Your task to perform on an android device: turn on location history Image 0: 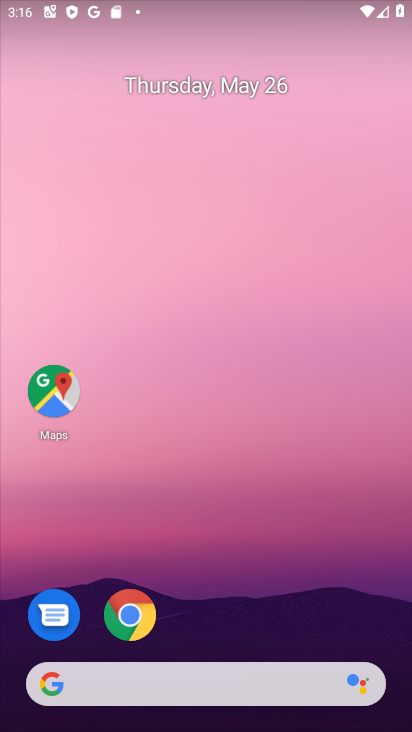
Step 0: drag from (241, 629) to (224, 129)
Your task to perform on an android device: turn on location history Image 1: 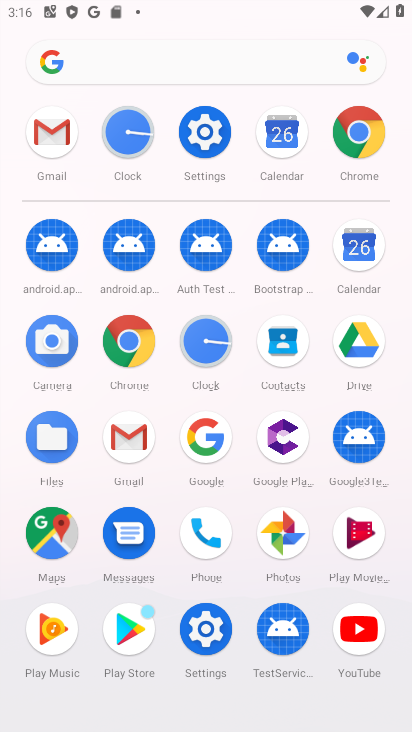
Step 1: click (193, 144)
Your task to perform on an android device: turn on location history Image 2: 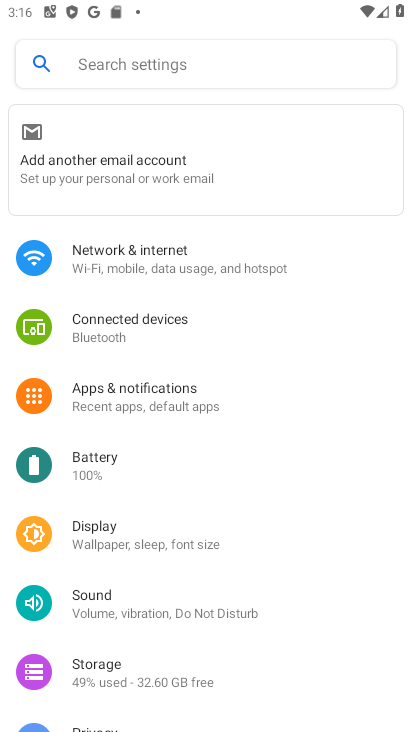
Step 2: drag from (108, 624) to (118, 306)
Your task to perform on an android device: turn on location history Image 3: 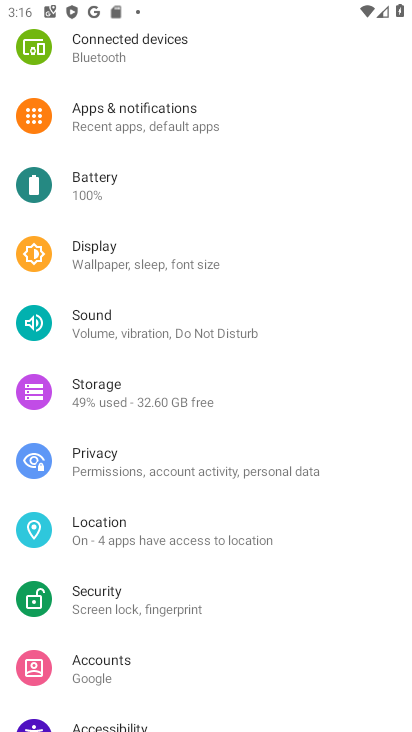
Step 3: click (107, 527)
Your task to perform on an android device: turn on location history Image 4: 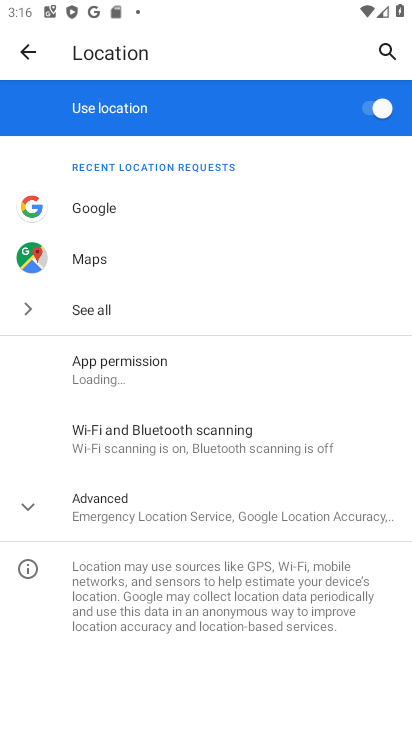
Step 4: click (92, 527)
Your task to perform on an android device: turn on location history Image 5: 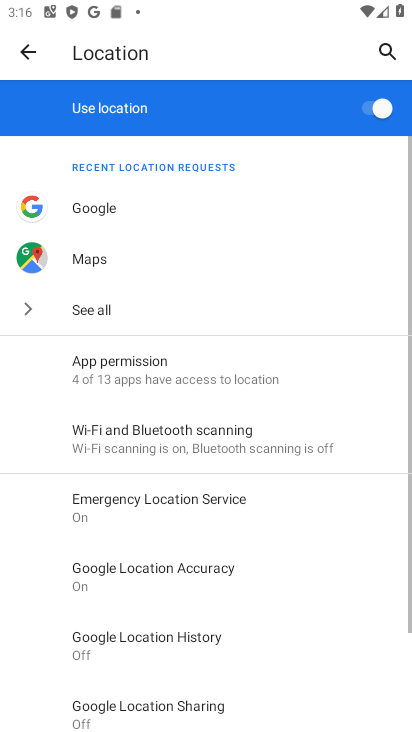
Step 5: click (134, 637)
Your task to perform on an android device: turn on location history Image 6: 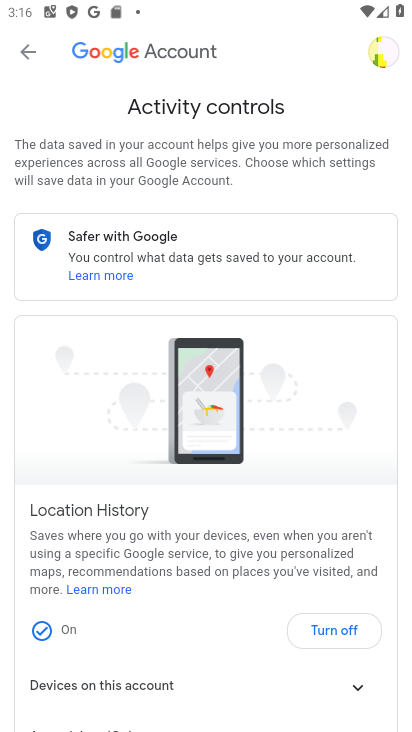
Step 6: task complete